Your task to perform on an android device: Go to wifi settings Image 0: 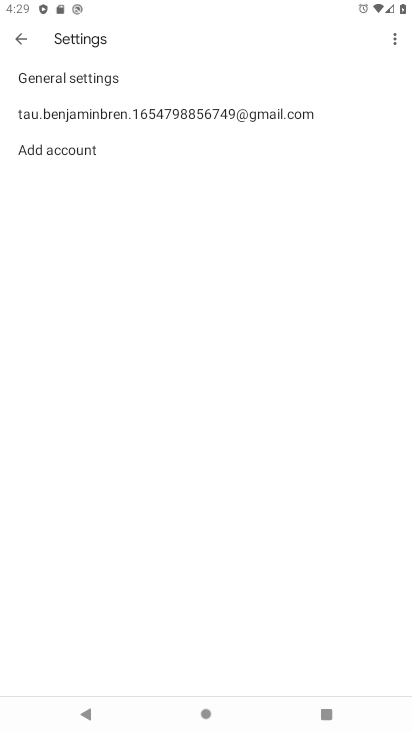
Step 0: press home button
Your task to perform on an android device: Go to wifi settings Image 1: 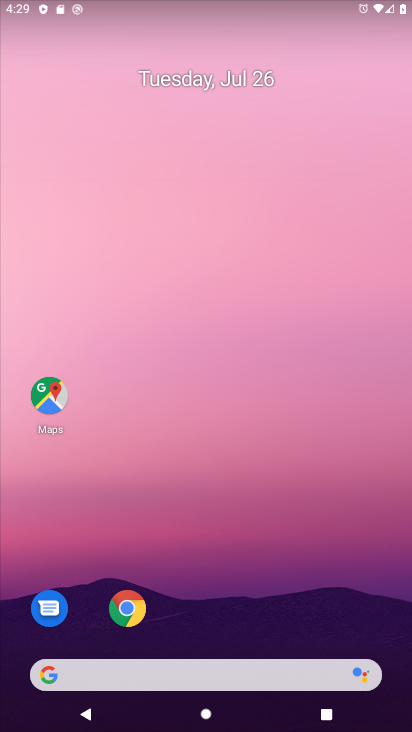
Step 1: drag from (369, 579) to (277, 14)
Your task to perform on an android device: Go to wifi settings Image 2: 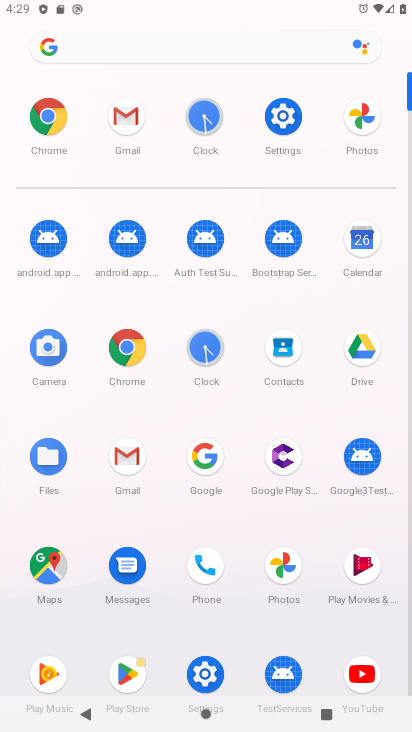
Step 2: click (292, 112)
Your task to perform on an android device: Go to wifi settings Image 3: 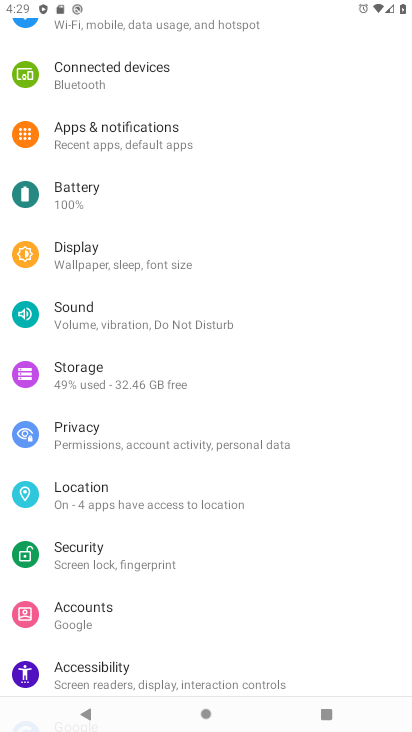
Step 3: drag from (301, 88) to (341, 547)
Your task to perform on an android device: Go to wifi settings Image 4: 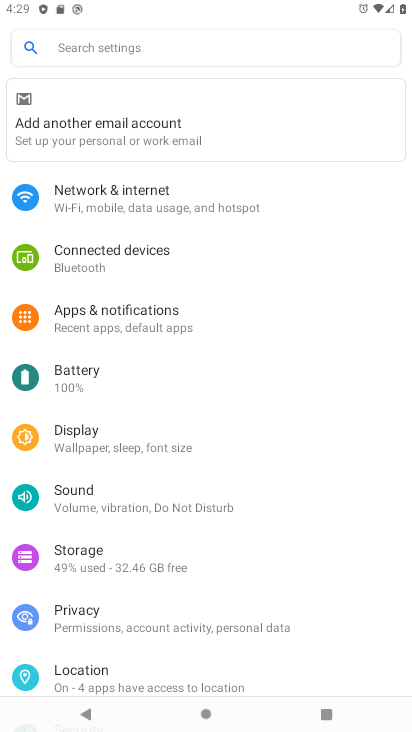
Step 4: click (157, 197)
Your task to perform on an android device: Go to wifi settings Image 5: 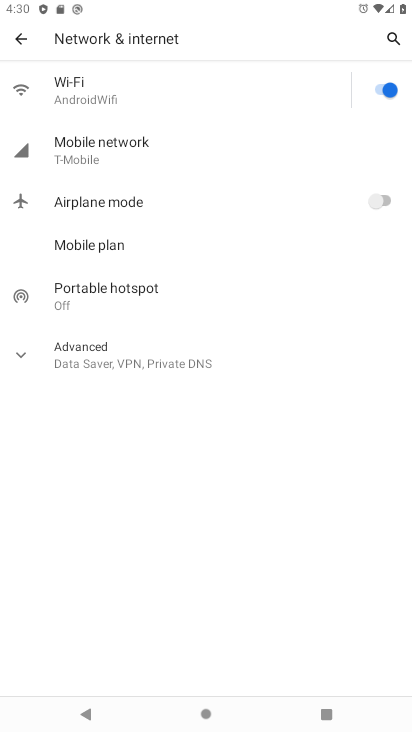
Step 5: click (256, 91)
Your task to perform on an android device: Go to wifi settings Image 6: 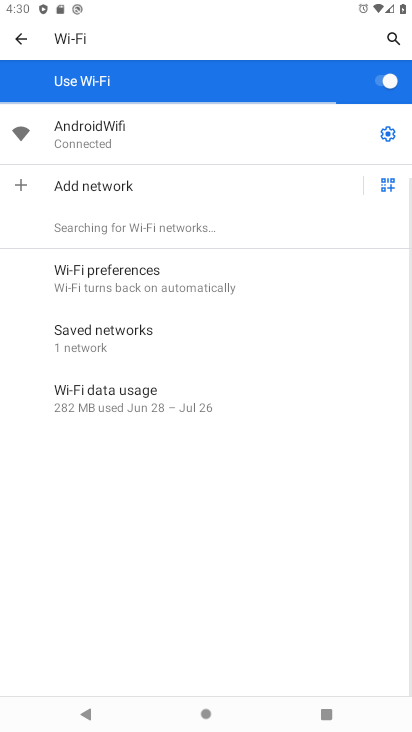
Step 6: click (376, 132)
Your task to perform on an android device: Go to wifi settings Image 7: 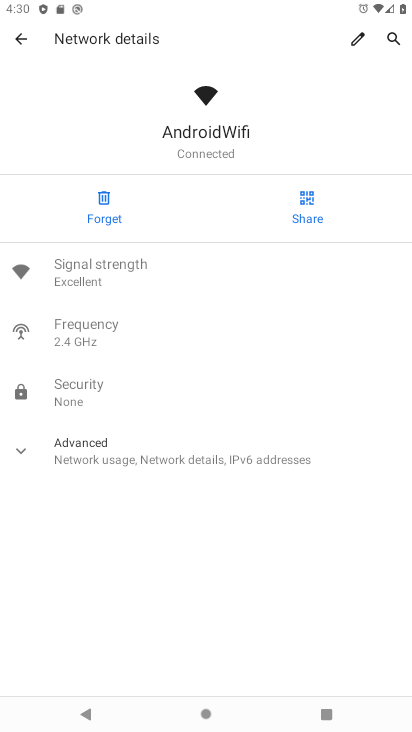
Step 7: task complete